Your task to perform on an android device: turn on location history Image 0: 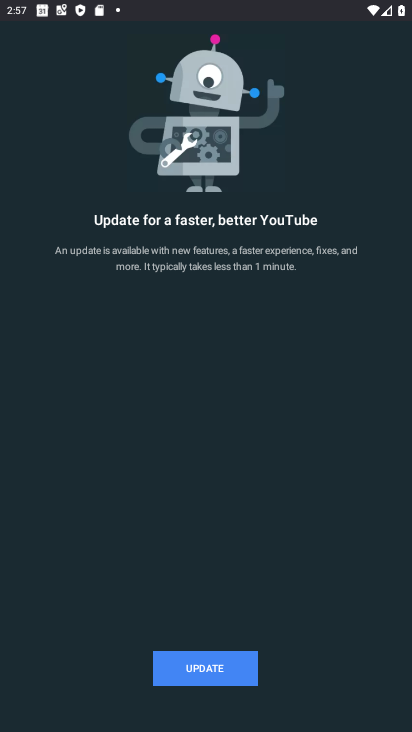
Step 0: press back button
Your task to perform on an android device: turn on location history Image 1: 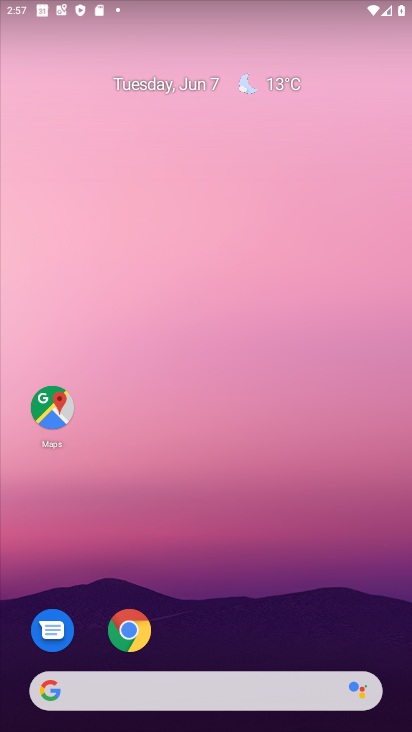
Step 1: drag from (234, 690) to (374, 137)
Your task to perform on an android device: turn on location history Image 2: 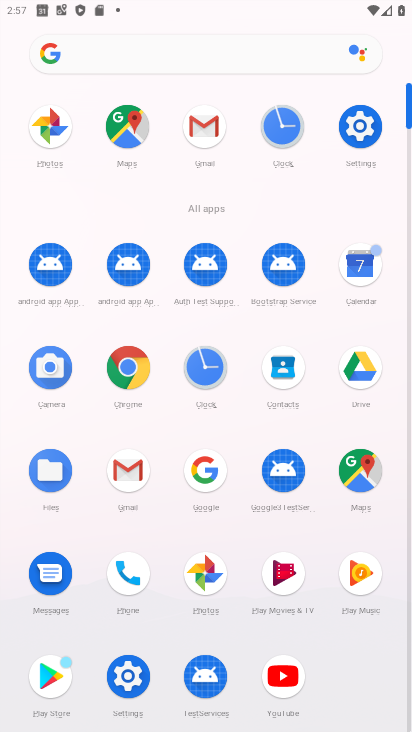
Step 2: click (128, 685)
Your task to perform on an android device: turn on location history Image 3: 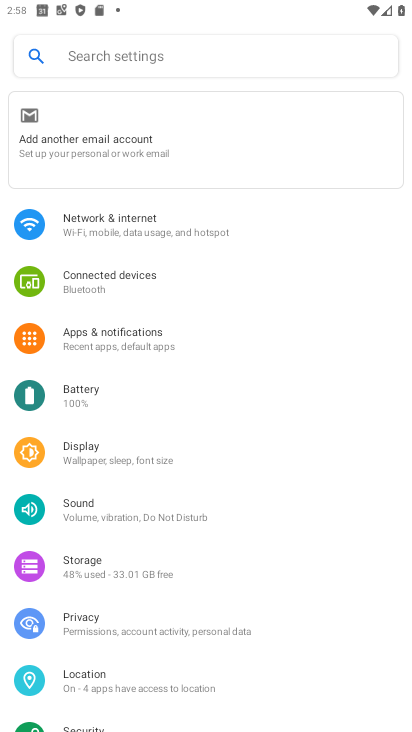
Step 3: drag from (136, 658) to (227, 294)
Your task to perform on an android device: turn on location history Image 4: 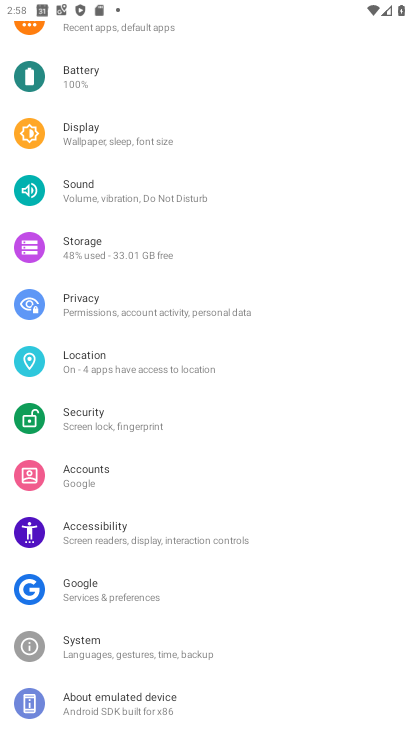
Step 4: click (130, 375)
Your task to perform on an android device: turn on location history Image 5: 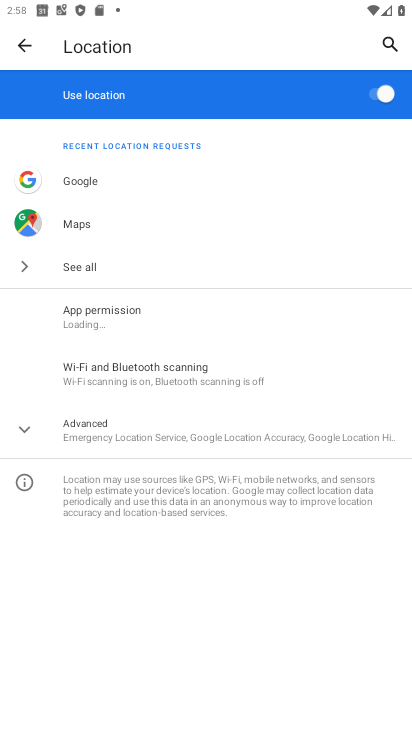
Step 5: click (138, 428)
Your task to perform on an android device: turn on location history Image 6: 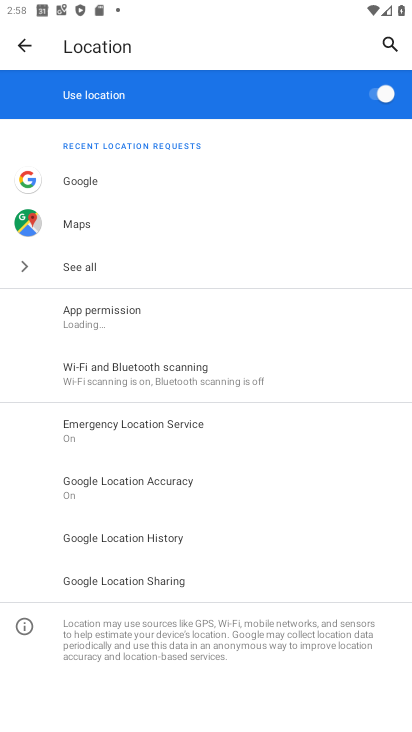
Step 6: click (113, 537)
Your task to perform on an android device: turn on location history Image 7: 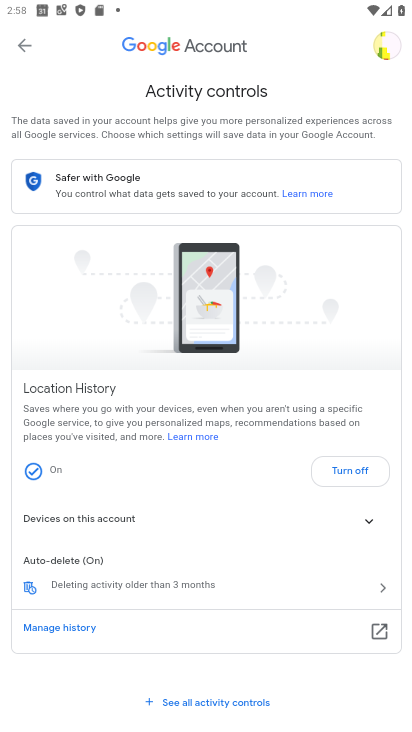
Step 7: task complete